Your task to perform on an android device: Go to sound settings Image 0: 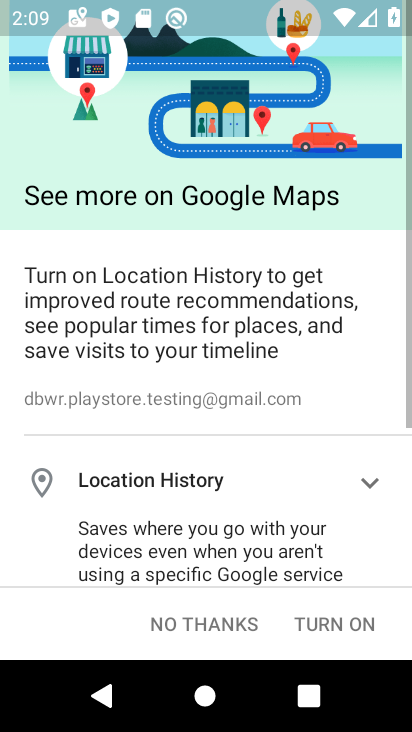
Step 0: press home button
Your task to perform on an android device: Go to sound settings Image 1: 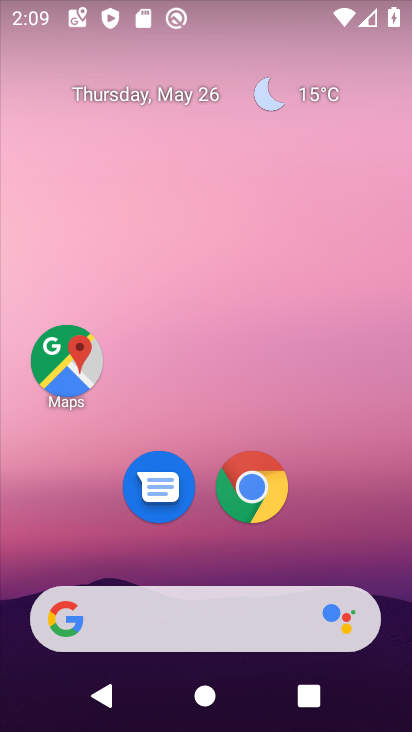
Step 1: drag from (204, 558) to (218, 199)
Your task to perform on an android device: Go to sound settings Image 2: 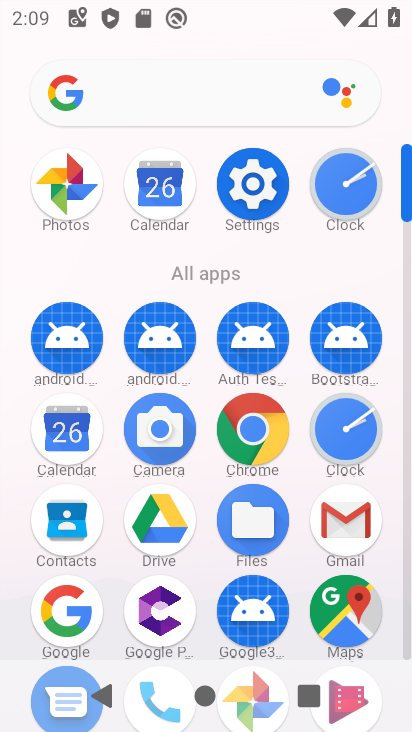
Step 2: click (240, 195)
Your task to perform on an android device: Go to sound settings Image 3: 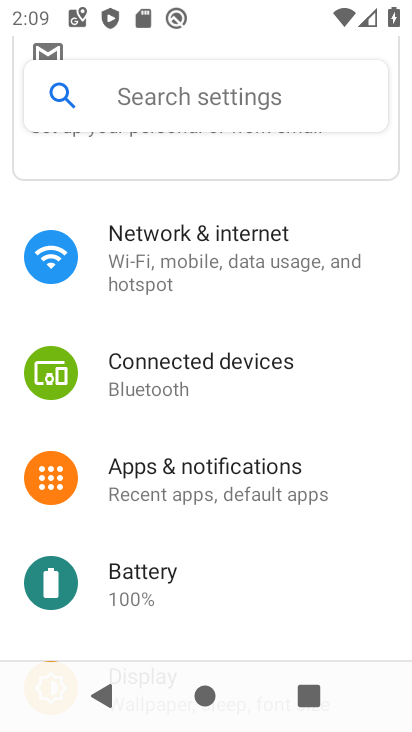
Step 3: drag from (235, 545) to (248, 365)
Your task to perform on an android device: Go to sound settings Image 4: 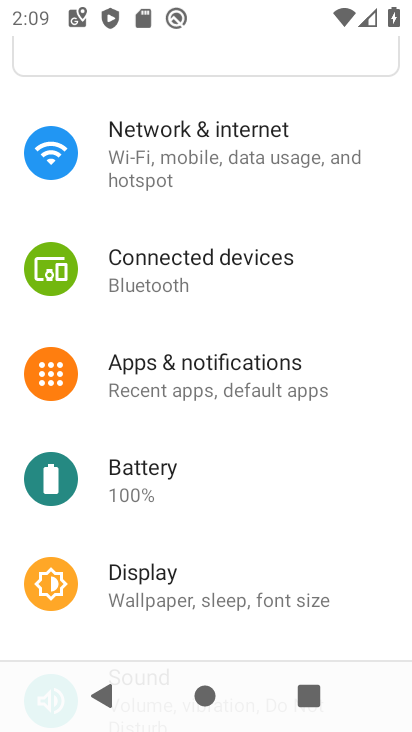
Step 4: drag from (243, 476) to (243, 364)
Your task to perform on an android device: Go to sound settings Image 5: 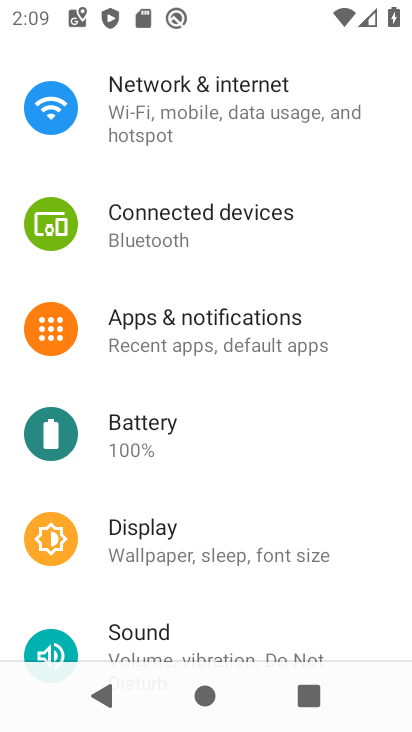
Step 5: click (237, 338)
Your task to perform on an android device: Go to sound settings Image 6: 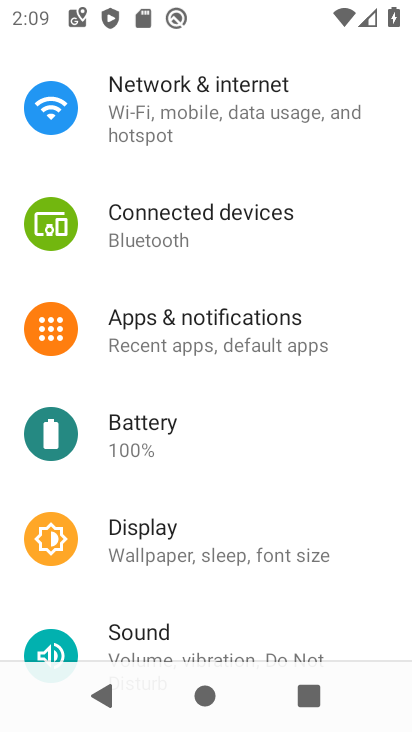
Step 6: drag from (251, 536) to (247, 361)
Your task to perform on an android device: Go to sound settings Image 7: 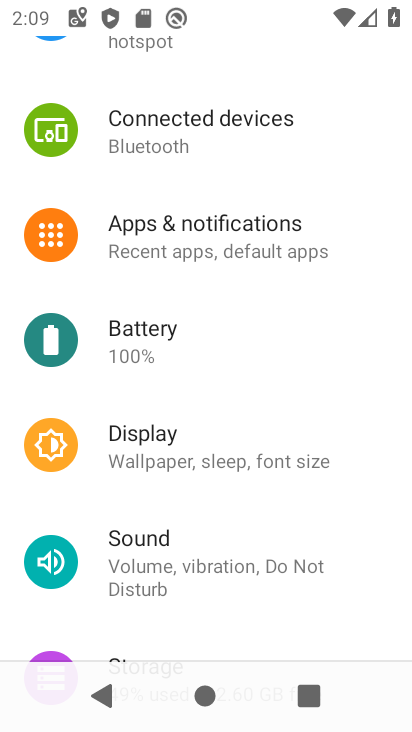
Step 7: click (161, 566)
Your task to perform on an android device: Go to sound settings Image 8: 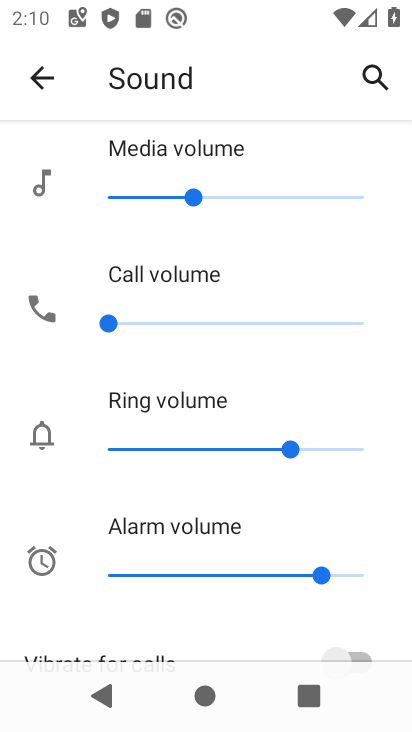
Step 8: task complete